Your task to perform on an android device: all mails in gmail Image 0: 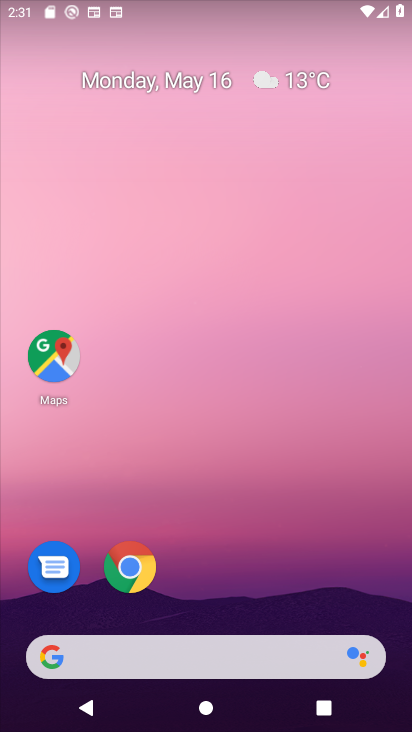
Step 0: click (275, 580)
Your task to perform on an android device: all mails in gmail Image 1: 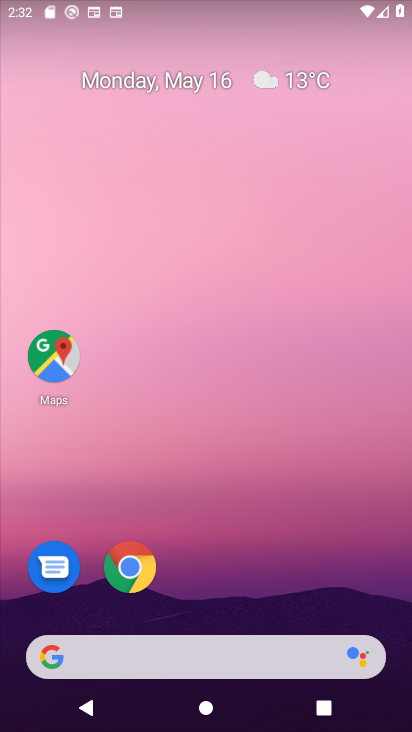
Step 1: drag from (261, 604) to (244, 108)
Your task to perform on an android device: all mails in gmail Image 2: 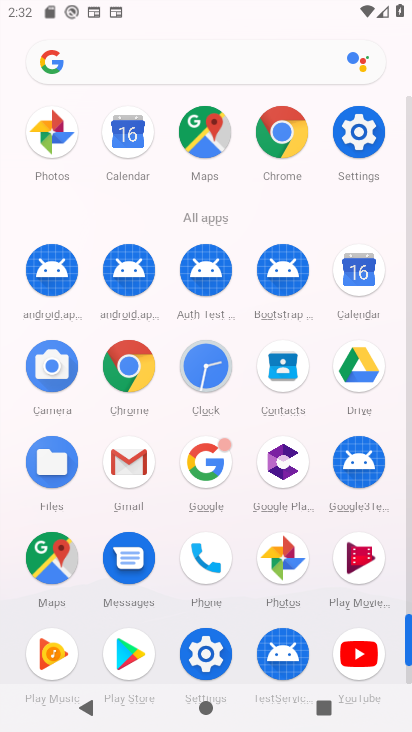
Step 2: click (116, 464)
Your task to perform on an android device: all mails in gmail Image 3: 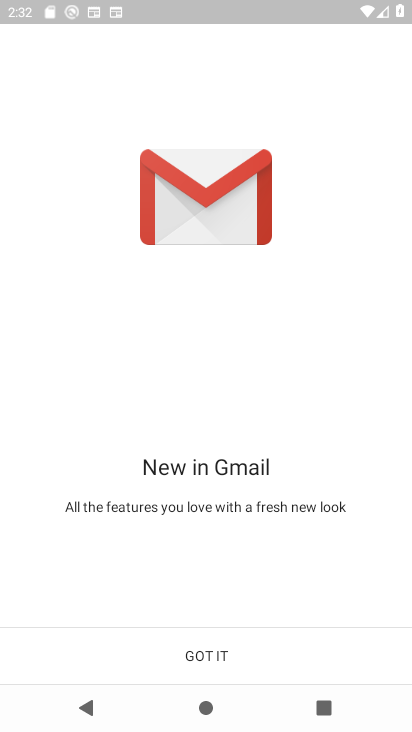
Step 3: click (225, 648)
Your task to perform on an android device: all mails in gmail Image 4: 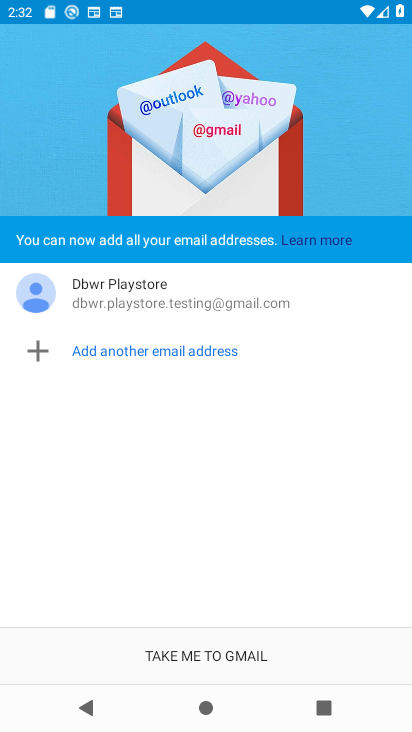
Step 4: click (244, 648)
Your task to perform on an android device: all mails in gmail Image 5: 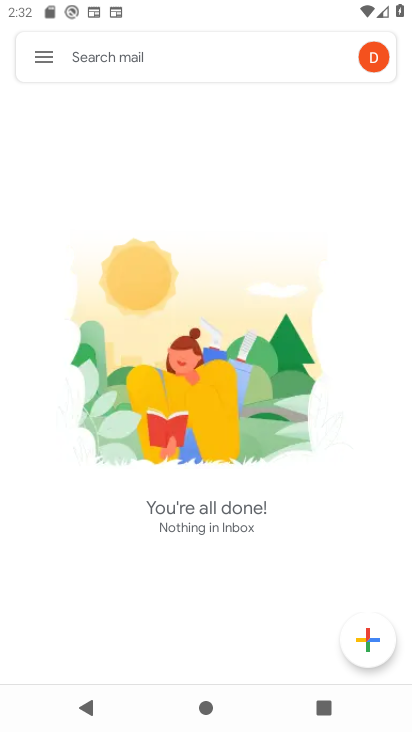
Step 5: click (48, 58)
Your task to perform on an android device: all mails in gmail Image 6: 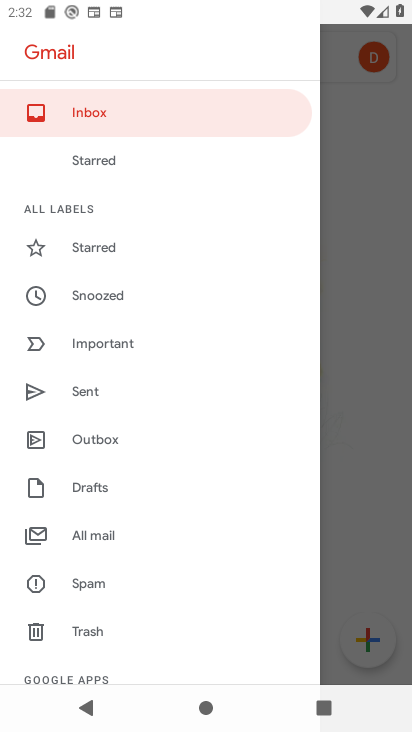
Step 6: drag from (177, 609) to (157, 400)
Your task to perform on an android device: all mails in gmail Image 7: 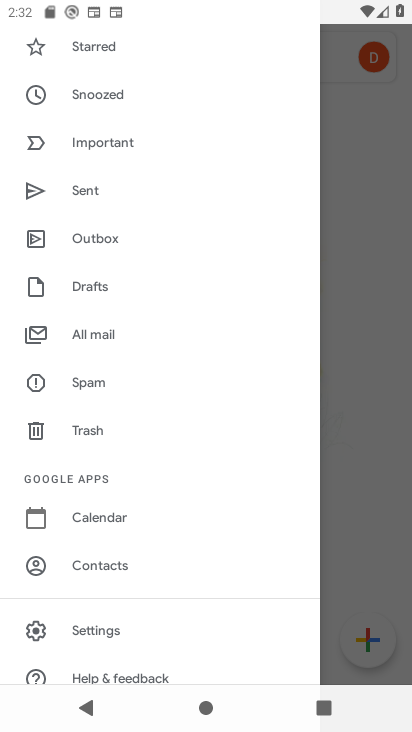
Step 7: click (91, 327)
Your task to perform on an android device: all mails in gmail Image 8: 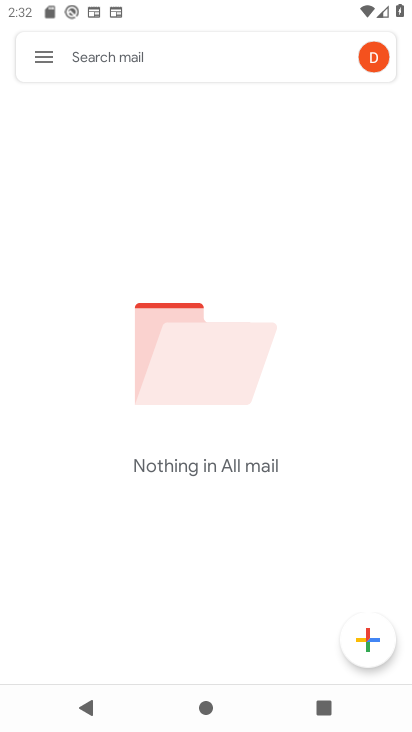
Step 8: task complete